Your task to perform on an android device: Do I have any events this weekend? Image 0: 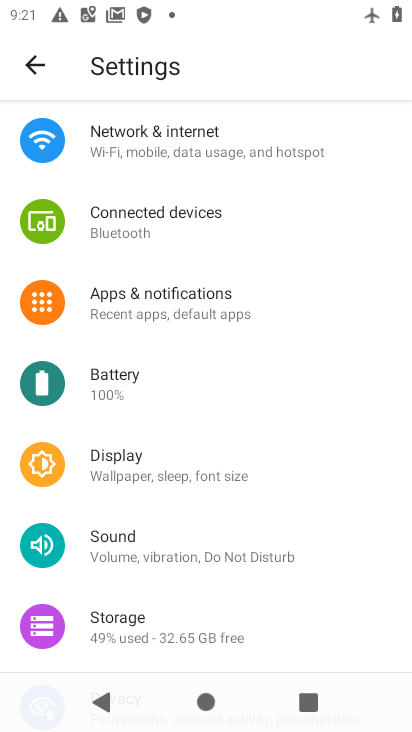
Step 0: press home button
Your task to perform on an android device: Do I have any events this weekend? Image 1: 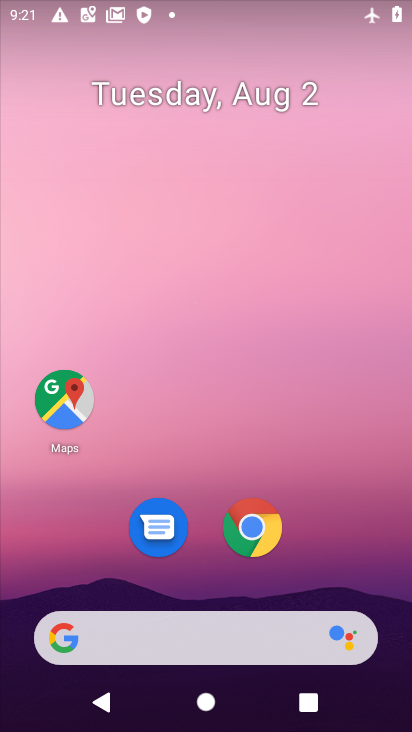
Step 1: drag from (157, 622) to (195, 138)
Your task to perform on an android device: Do I have any events this weekend? Image 2: 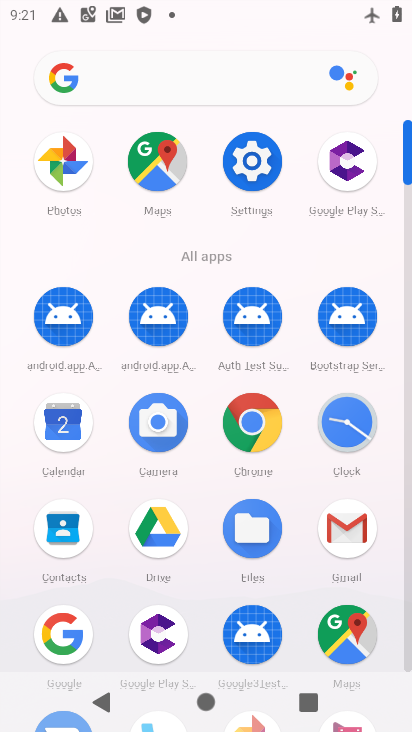
Step 2: click (58, 435)
Your task to perform on an android device: Do I have any events this weekend? Image 3: 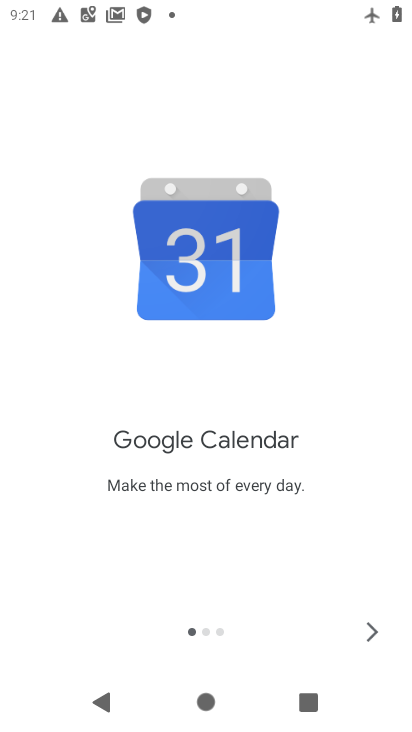
Step 3: click (368, 632)
Your task to perform on an android device: Do I have any events this weekend? Image 4: 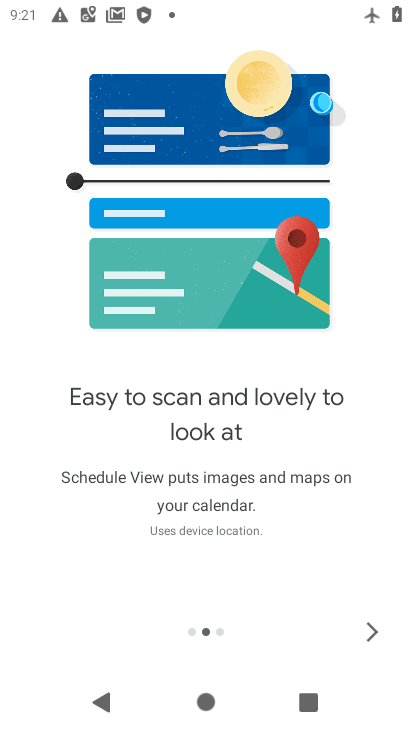
Step 4: click (368, 632)
Your task to perform on an android device: Do I have any events this weekend? Image 5: 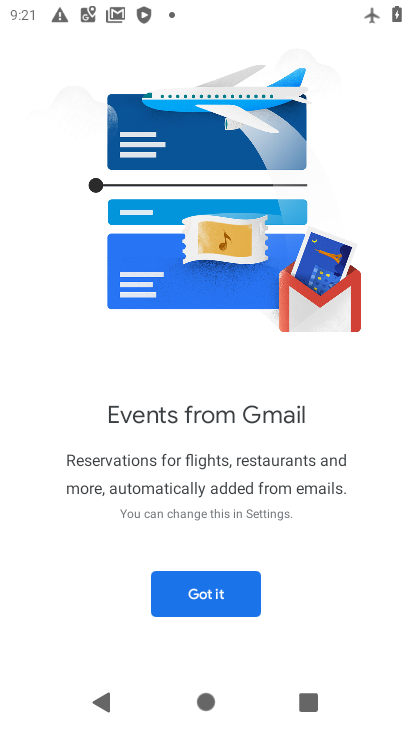
Step 5: click (231, 587)
Your task to perform on an android device: Do I have any events this weekend? Image 6: 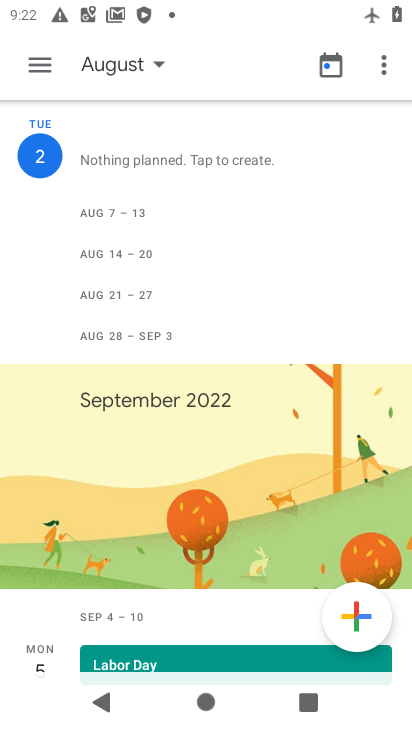
Step 6: click (135, 62)
Your task to perform on an android device: Do I have any events this weekend? Image 7: 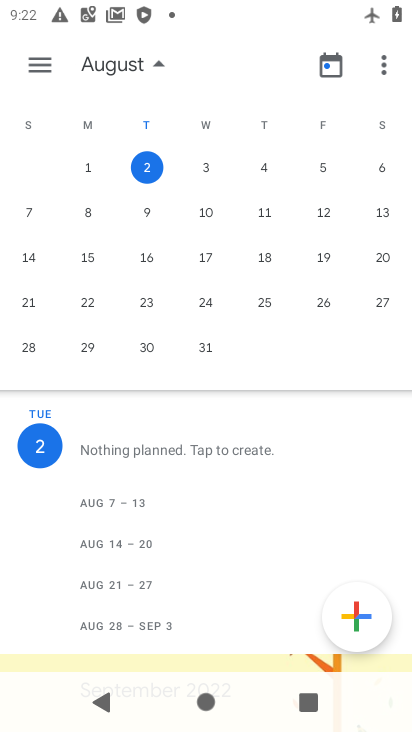
Step 7: click (30, 210)
Your task to perform on an android device: Do I have any events this weekend? Image 8: 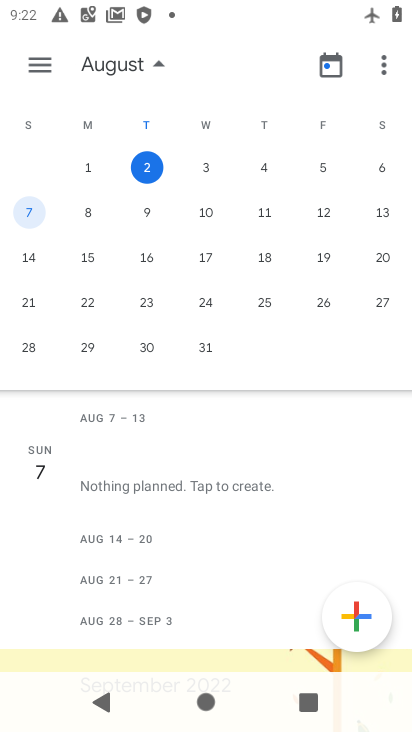
Step 8: task complete